Your task to perform on an android device: search for console tables on article.com Image 0: 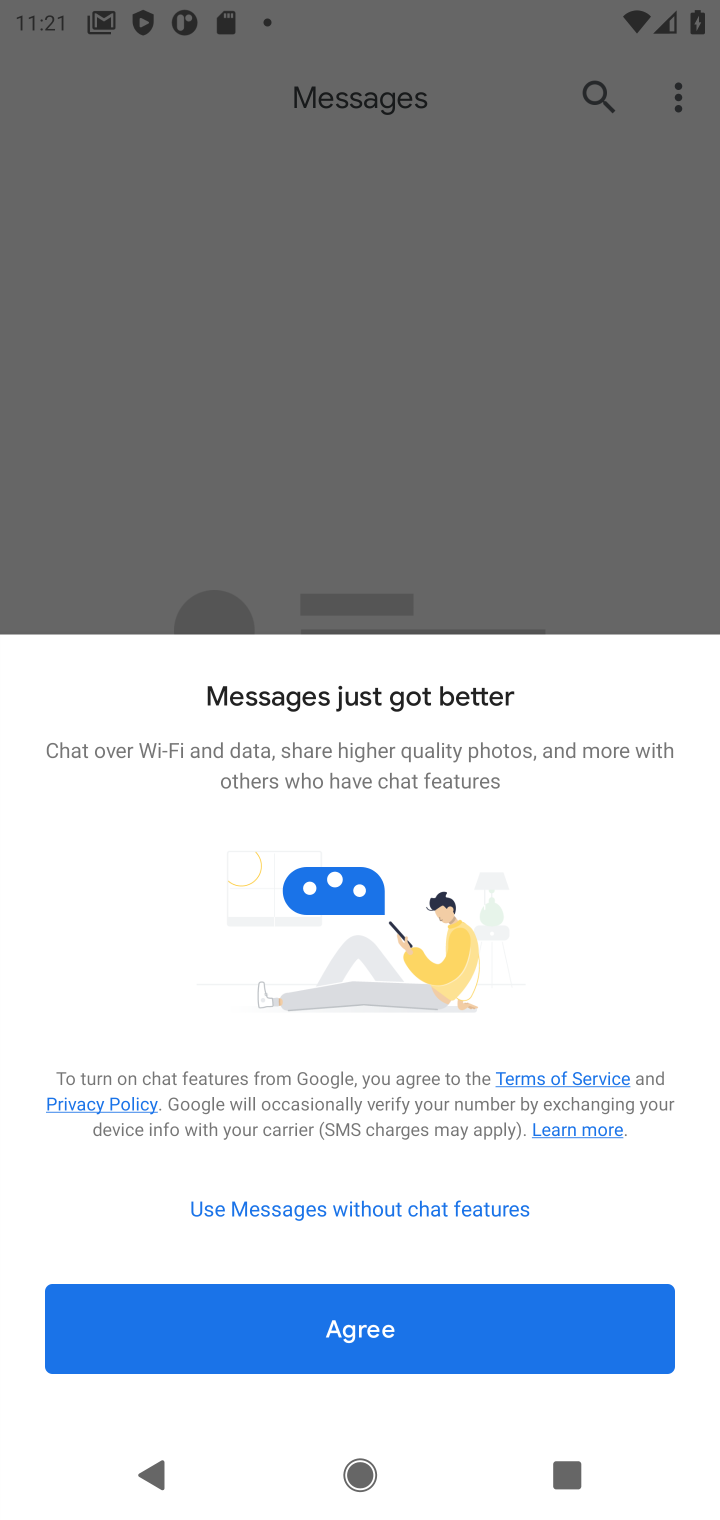
Step 0: press home button
Your task to perform on an android device: search for console tables on article.com Image 1: 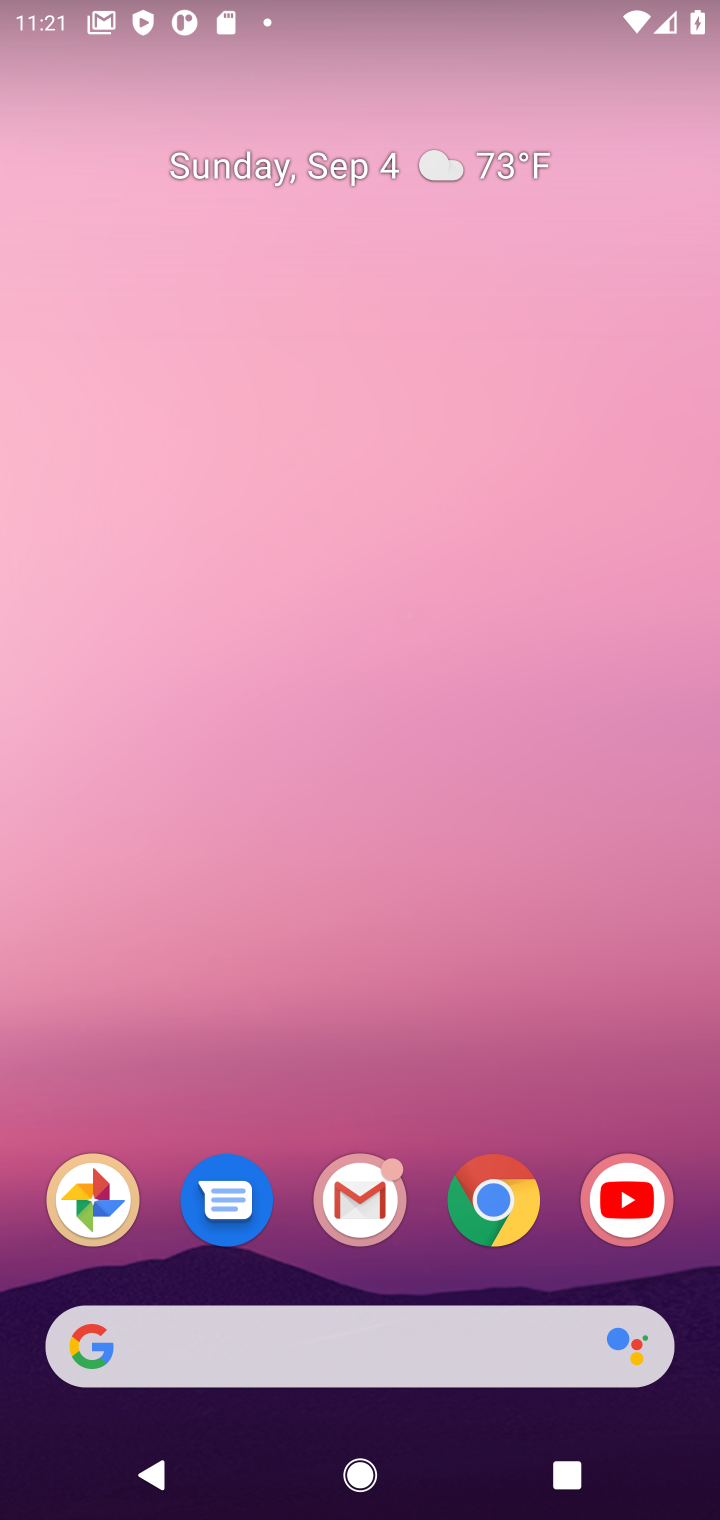
Step 1: click (481, 1222)
Your task to perform on an android device: search for console tables on article.com Image 2: 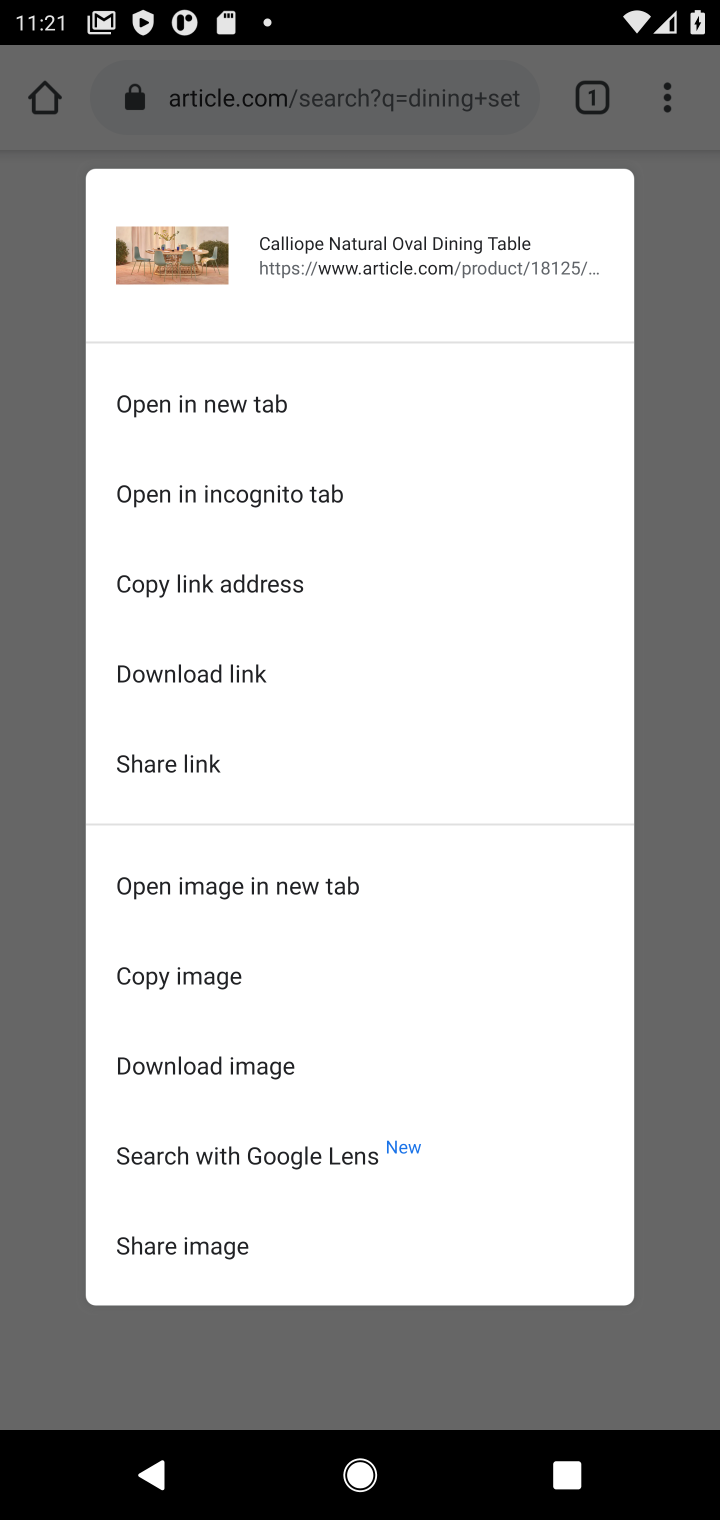
Step 2: press home button
Your task to perform on an android device: search for console tables on article.com Image 3: 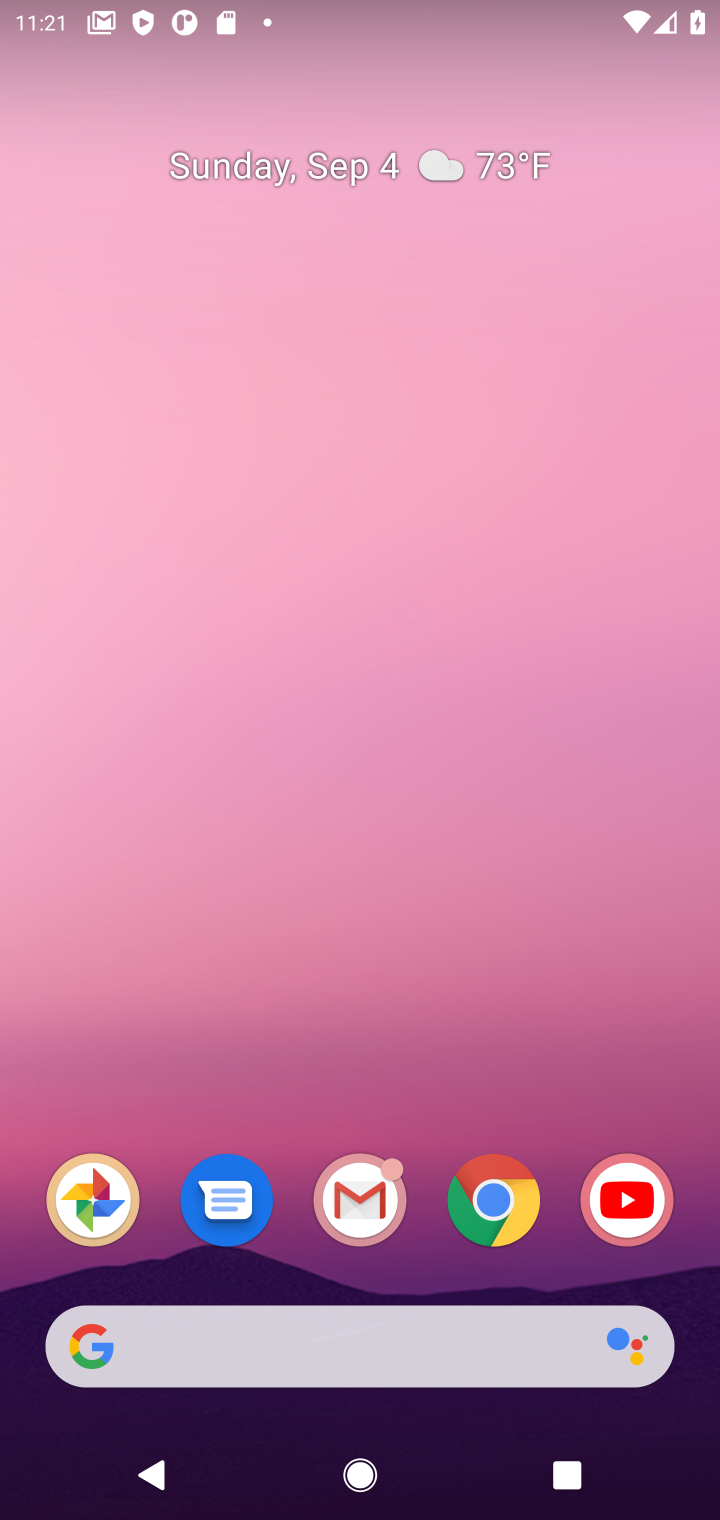
Step 3: click (512, 1217)
Your task to perform on an android device: search for console tables on article.com Image 4: 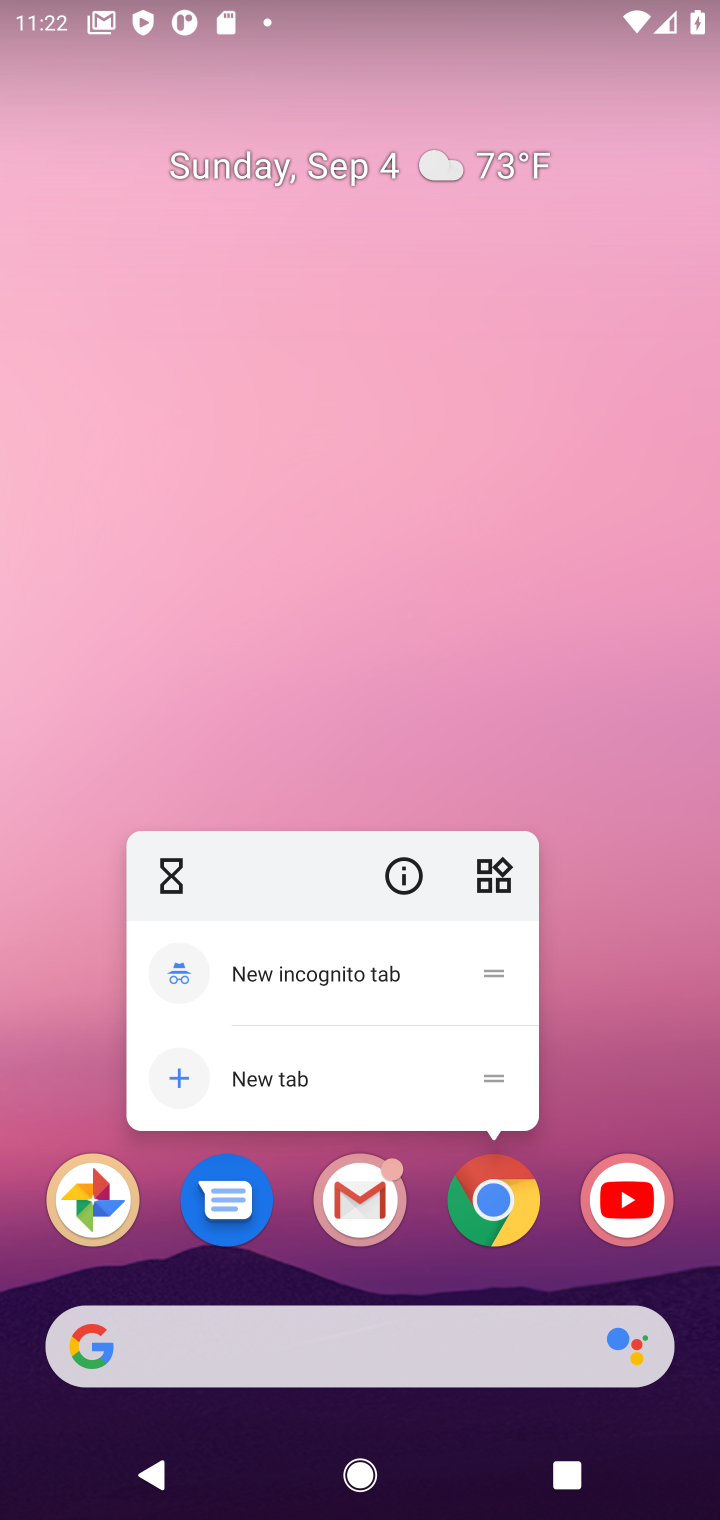
Step 4: click (511, 1223)
Your task to perform on an android device: search for console tables on article.com Image 5: 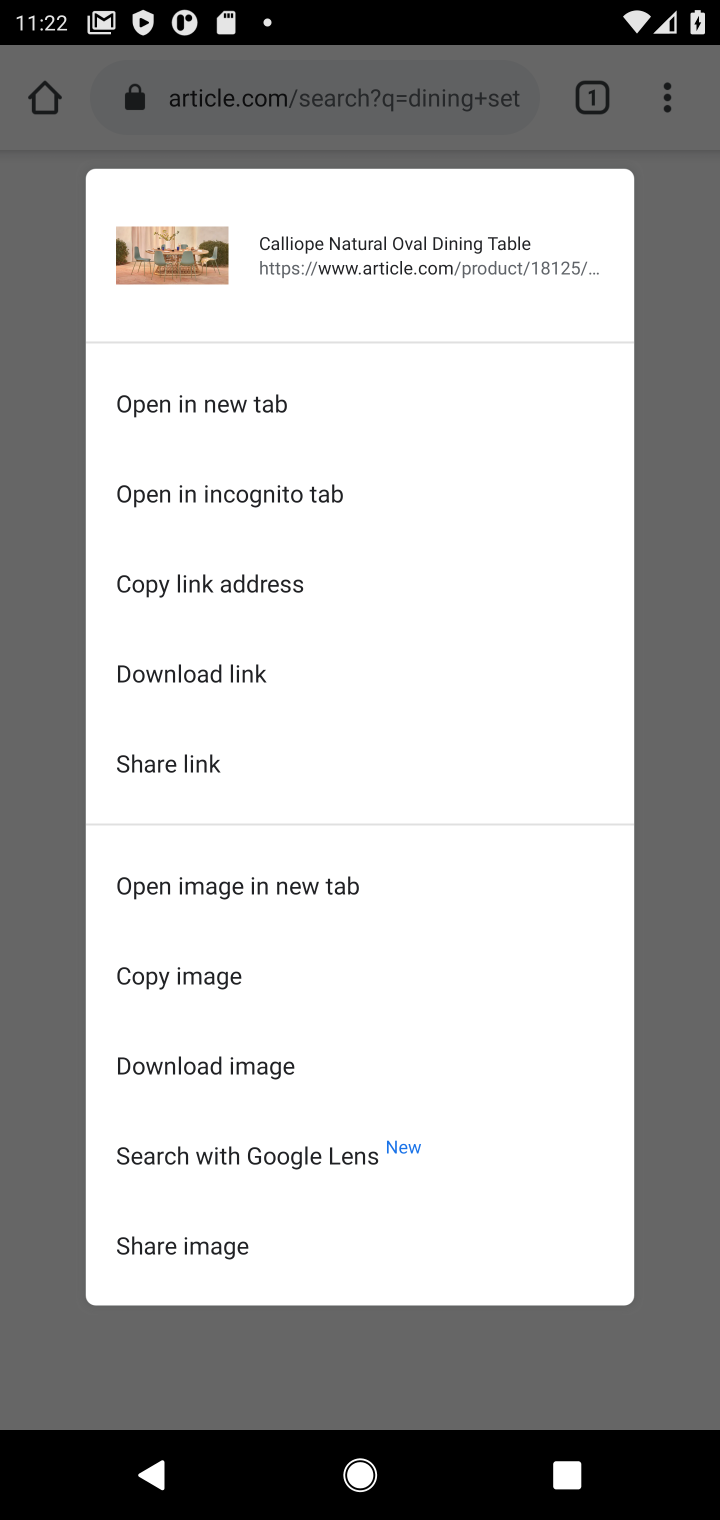
Step 5: click (35, 373)
Your task to perform on an android device: search for console tables on article.com Image 6: 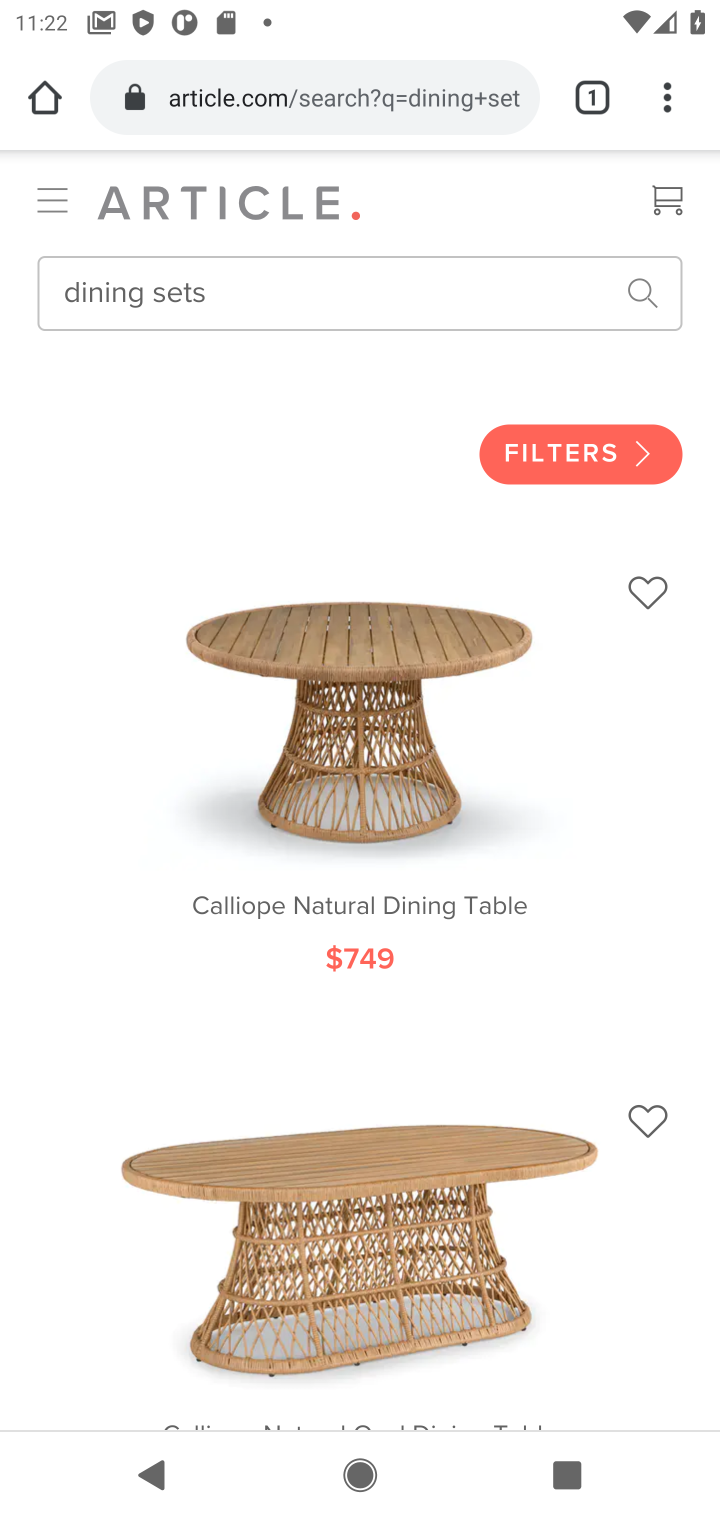
Step 6: click (631, 281)
Your task to perform on an android device: search for console tables on article.com Image 7: 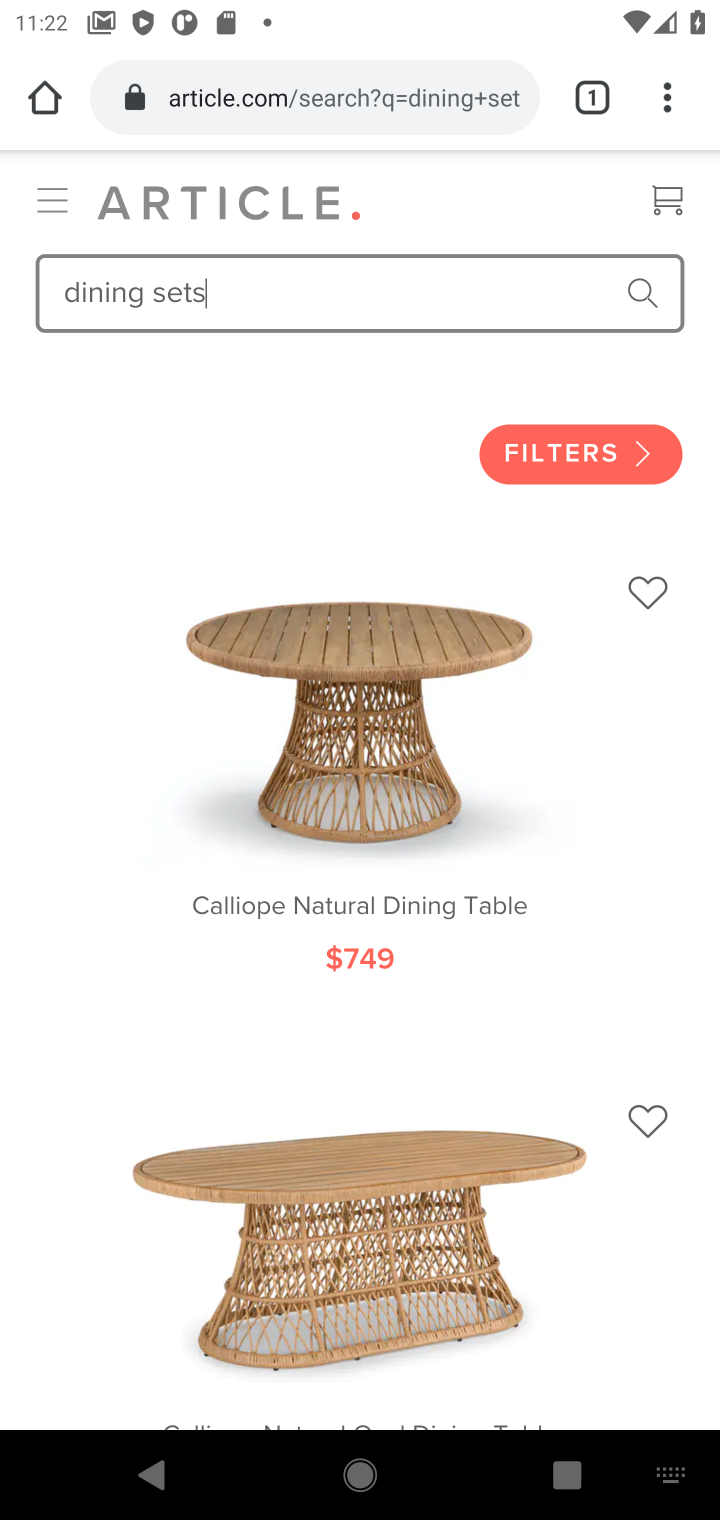
Step 7: click (309, 302)
Your task to perform on an android device: search for console tables on article.com Image 8: 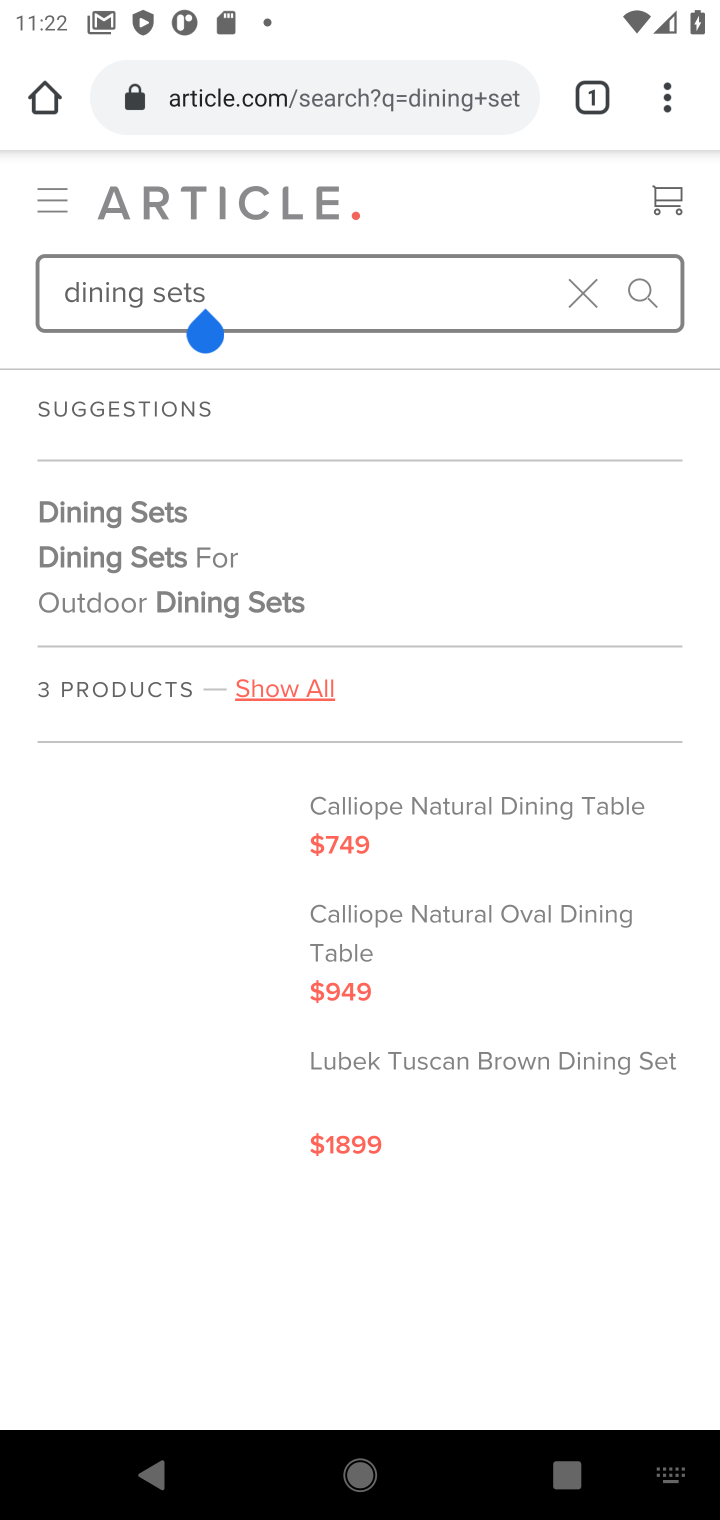
Step 8: click (309, 302)
Your task to perform on an android device: search for console tables on article.com Image 9: 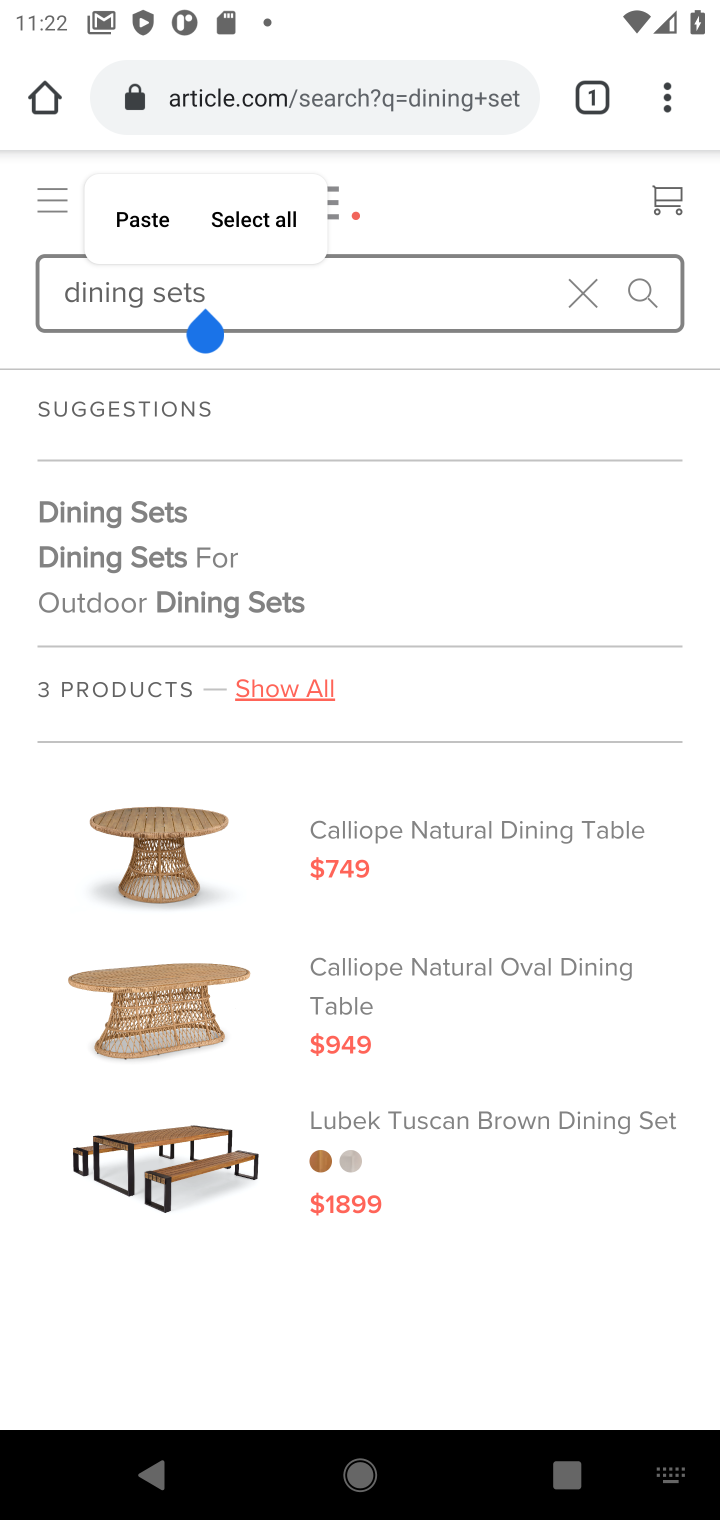
Step 9: click (589, 300)
Your task to perform on an android device: search for console tables on article.com Image 10: 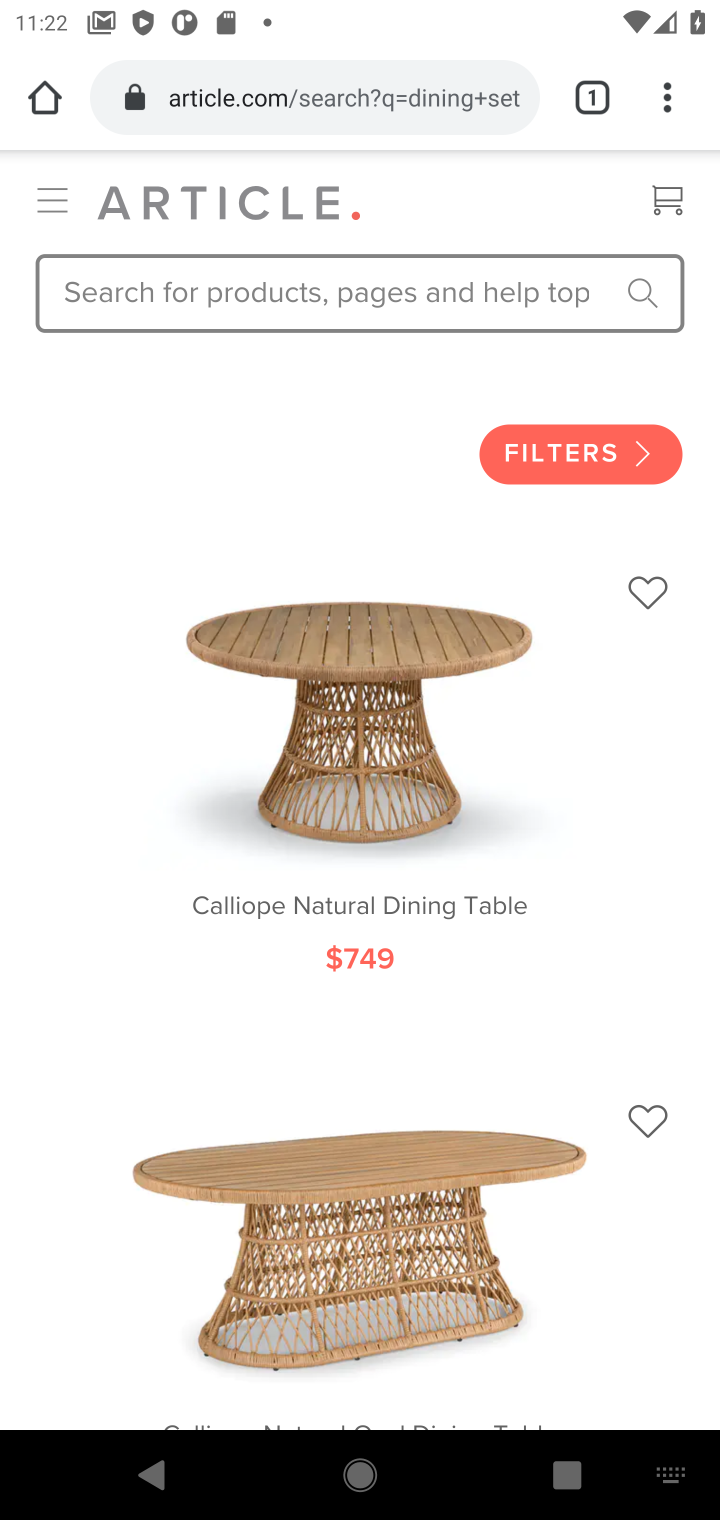
Step 10: type "console tables"
Your task to perform on an android device: search for console tables on article.com Image 11: 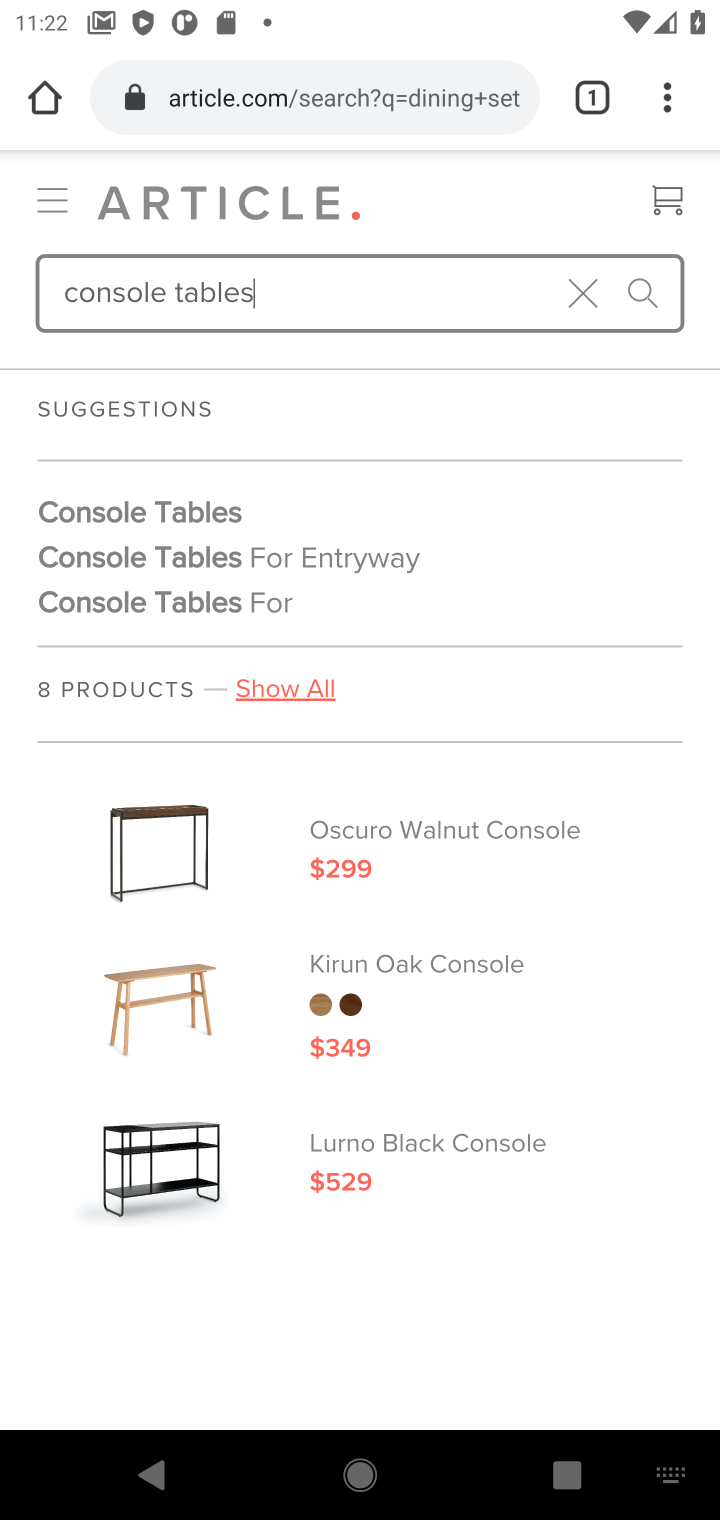
Step 11: click (203, 514)
Your task to perform on an android device: search for console tables on article.com Image 12: 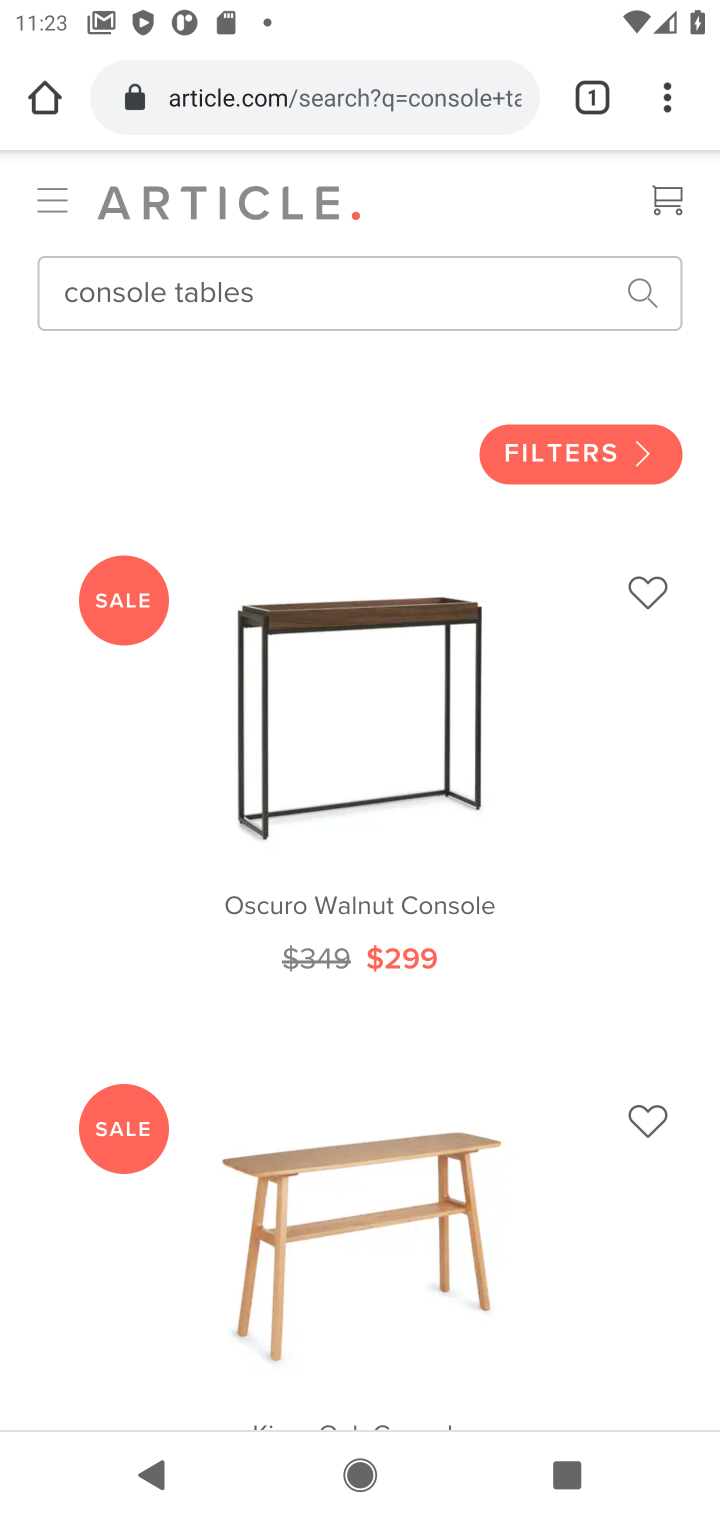
Step 12: task complete